Your task to perform on an android device: toggle wifi Image 0: 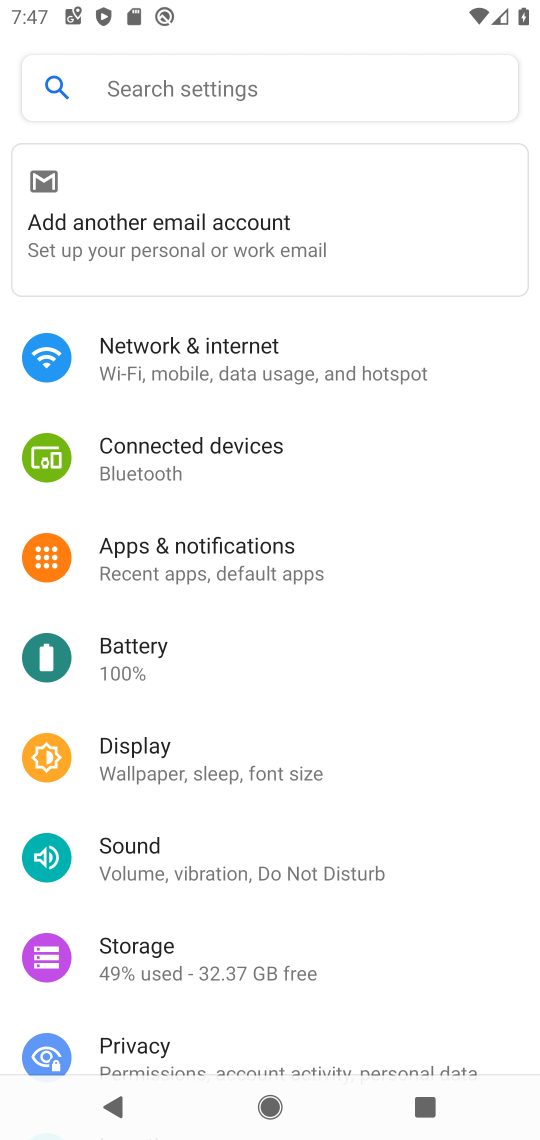
Step 0: click (196, 337)
Your task to perform on an android device: toggle wifi Image 1: 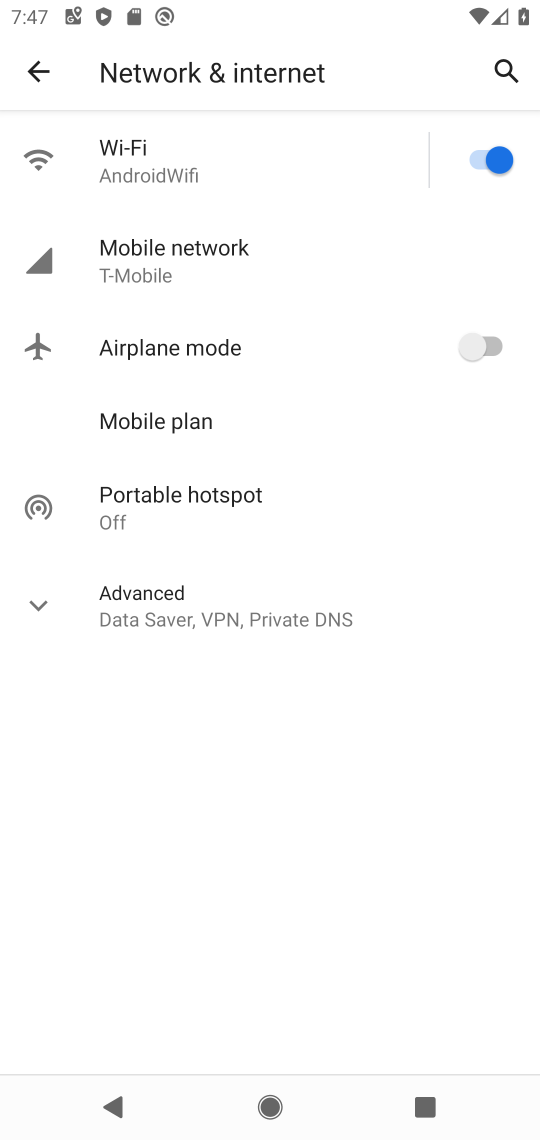
Step 1: click (493, 156)
Your task to perform on an android device: toggle wifi Image 2: 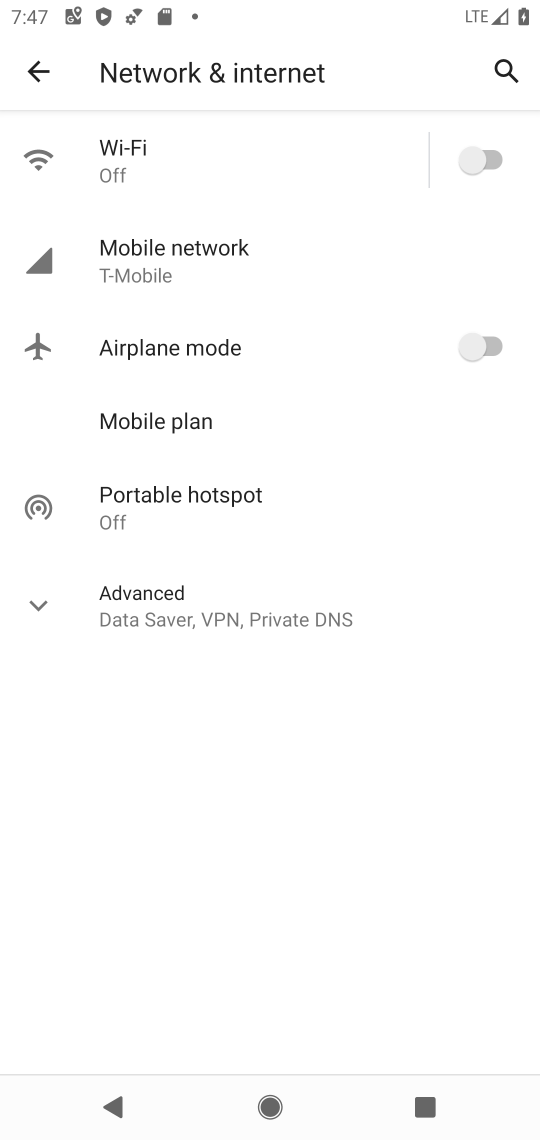
Step 2: task complete